Your task to perform on an android device: turn on location history Image 0: 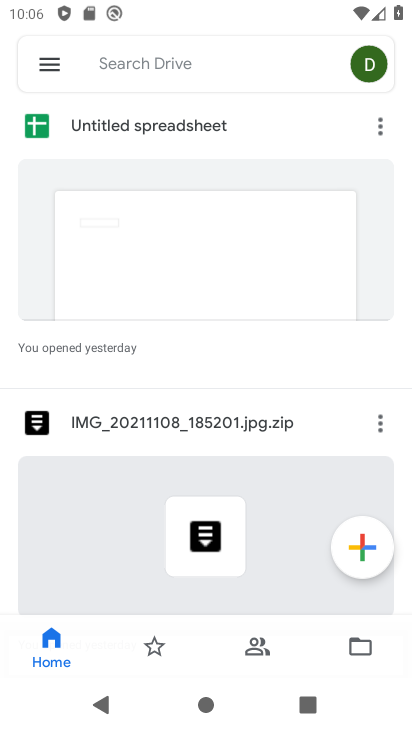
Step 0: press home button
Your task to perform on an android device: turn on location history Image 1: 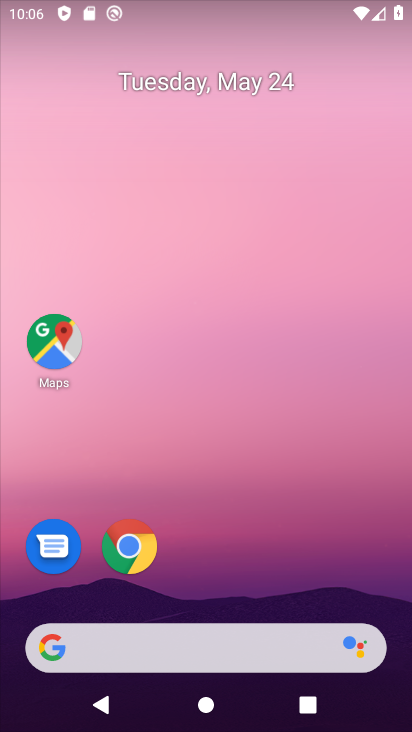
Step 1: drag from (313, 553) to (330, 89)
Your task to perform on an android device: turn on location history Image 2: 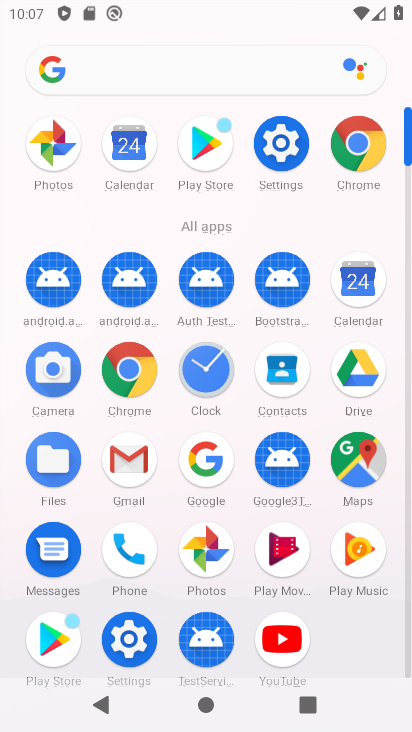
Step 2: click (274, 147)
Your task to perform on an android device: turn on location history Image 3: 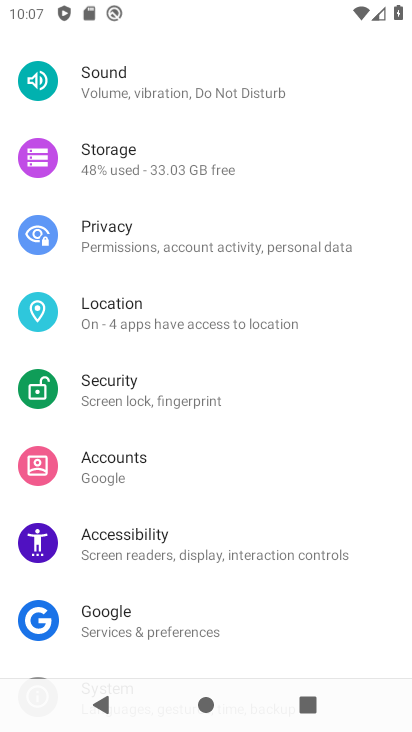
Step 3: drag from (209, 537) to (281, 138)
Your task to perform on an android device: turn on location history Image 4: 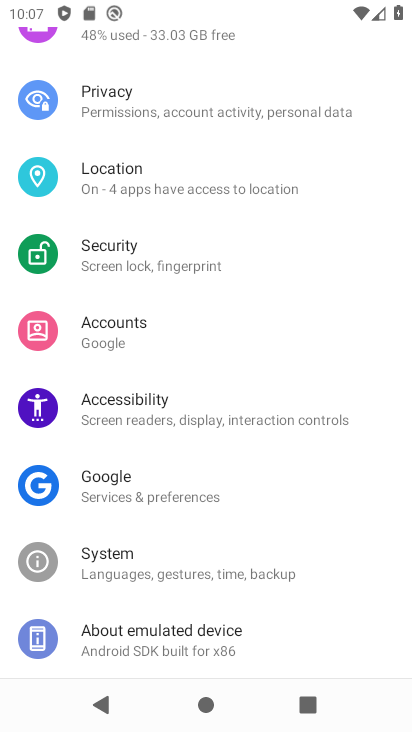
Step 4: click (195, 195)
Your task to perform on an android device: turn on location history Image 5: 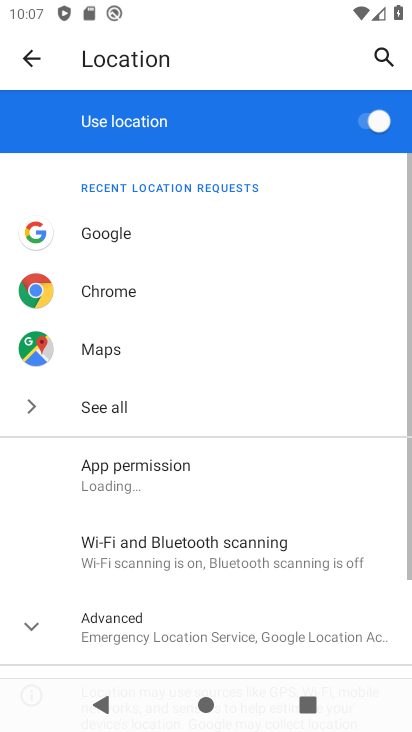
Step 5: drag from (173, 567) to (299, 203)
Your task to perform on an android device: turn on location history Image 6: 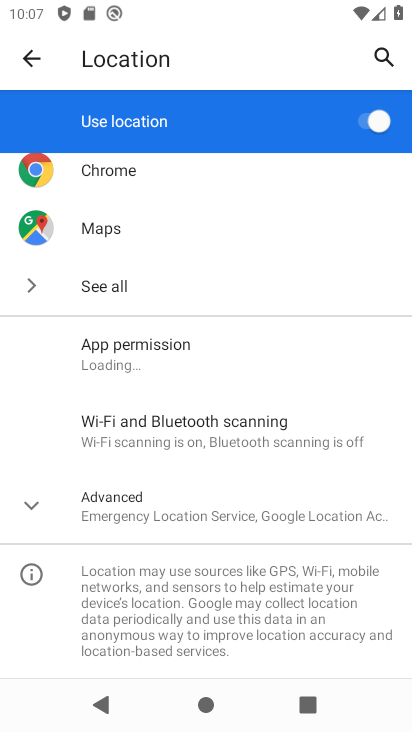
Step 6: click (146, 524)
Your task to perform on an android device: turn on location history Image 7: 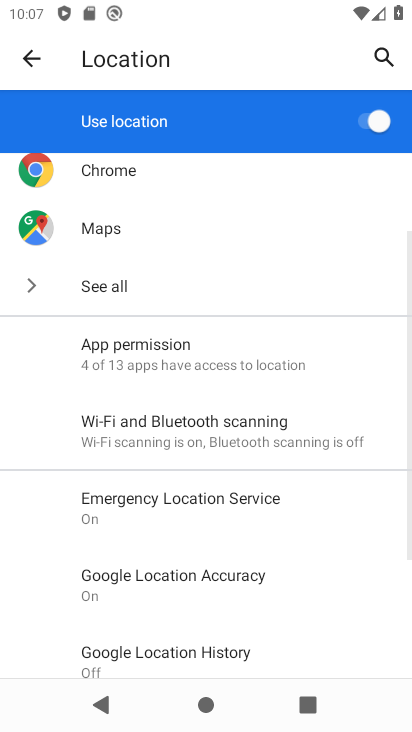
Step 7: drag from (220, 583) to (311, 235)
Your task to perform on an android device: turn on location history Image 8: 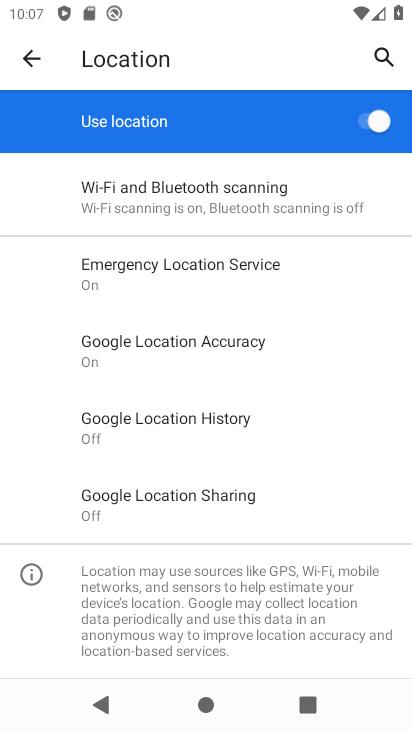
Step 8: click (197, 421)
Your task to perform on an android device: turn on location history Image 9: 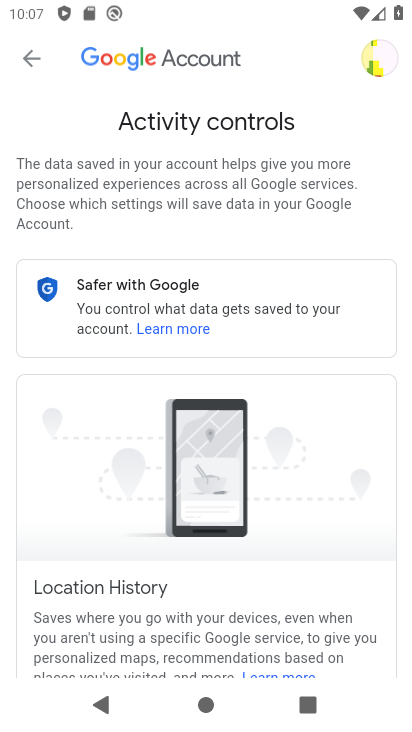
Step 9: drag from (234, 523) to (328, 137)
Your task to perform on an android device: turn on location history Image 10: 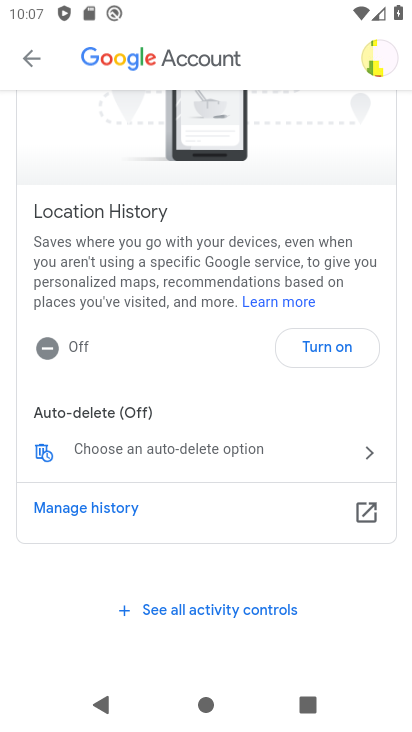
Step 10: click (317, 351)
Your task to perform on an android device: turn on location history Image 11: 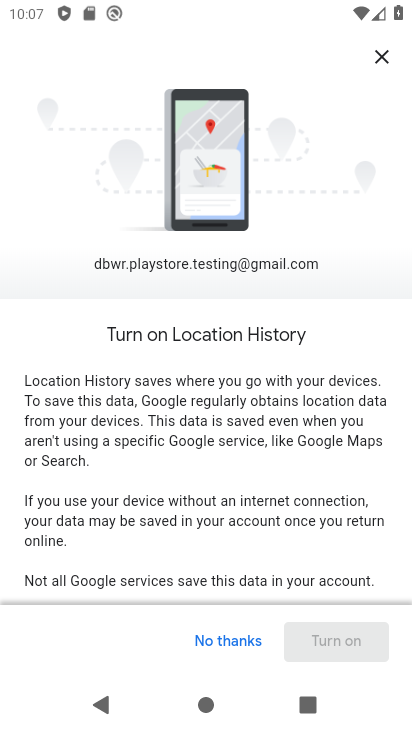
Step 11: drag from (281, 439) to (362, 1)
Your task to perform on an android device: turn on location history Image 12: 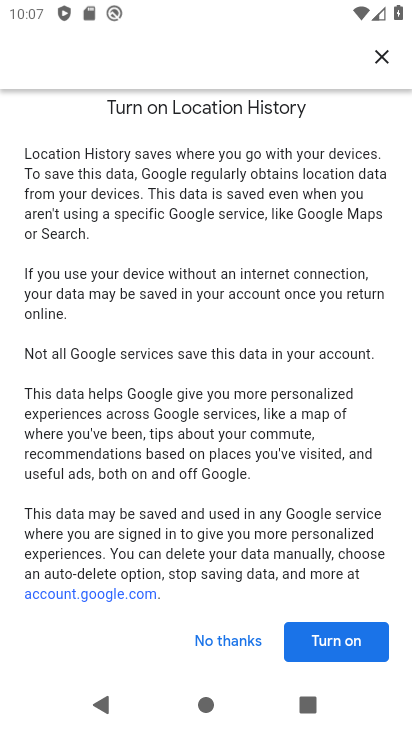
Step 12: drag from (294, 325) to (385, 72)
Your task to perform on an android device: turn on location history Image 13: 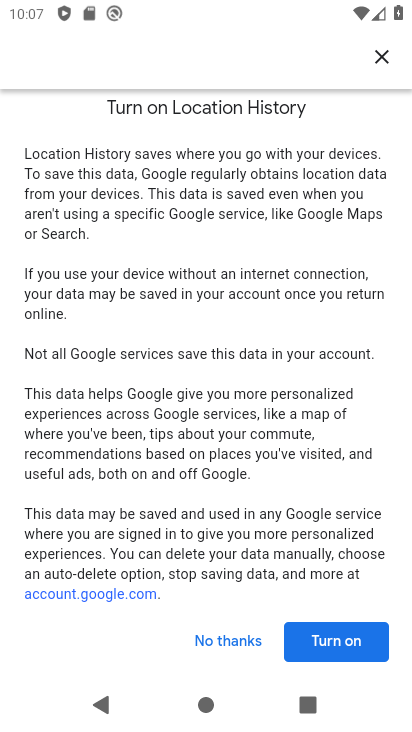
Step 13: click (331, 643)
Your task to perform on an android device: turn on location history Image 14: 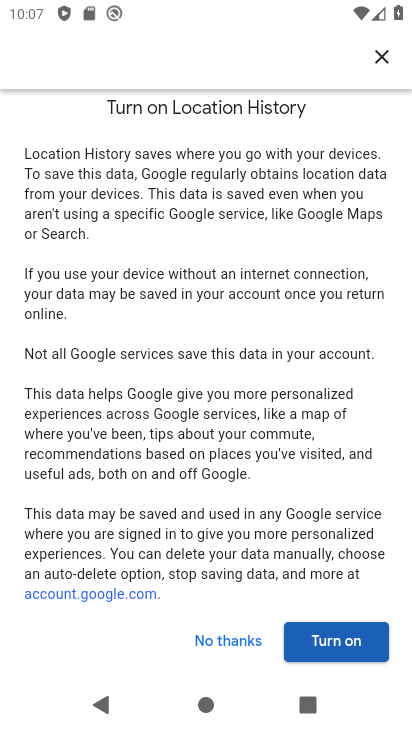
Step 14: click (308, 644)
Your task to perform on an android device: turn on location history Image 15: 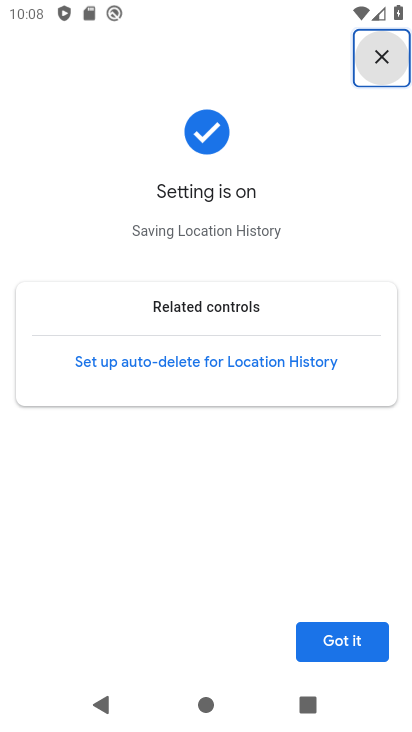
Step 15: task complete